Your task to perform on an android device: turn pop-ups off in chrome Image 0: 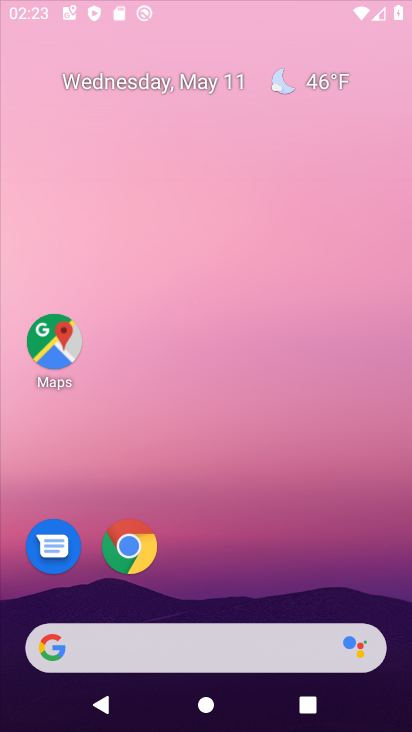
Step 0: click (217, 269)
Your task to perform on an android device: turn pop-ups off in chrome Image 1: 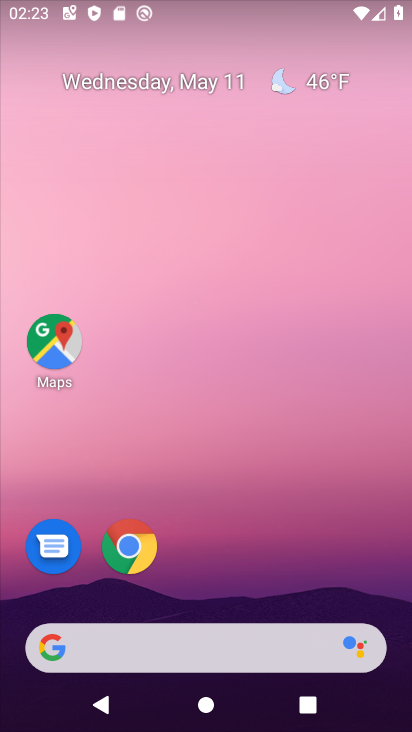
Step 1: drag from (210, 602) to (248, 197)
Your task to perform on an android device: turn pop-ups off in chrome Image 2: 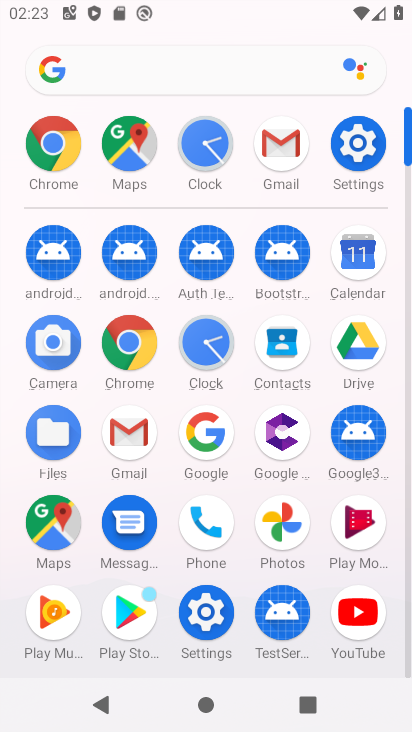
Step 2: click (128, 344)
Your task to perform on an android device: turn pop-ups off in chrome Image 3: 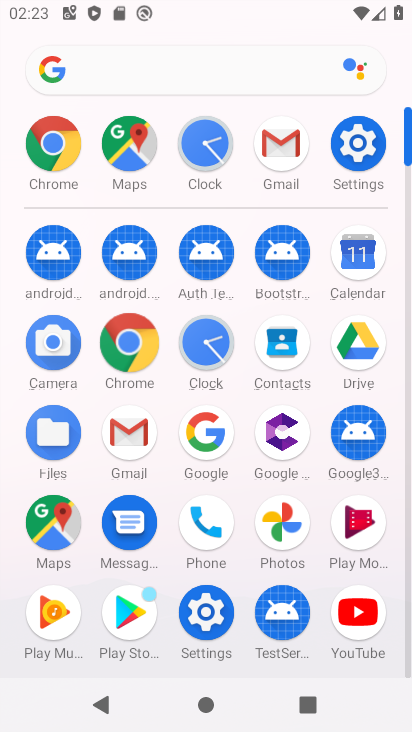
Step 3: click (128, 344)
Your task to perform on an android device: turn pop-ups off in chrome Image 4: 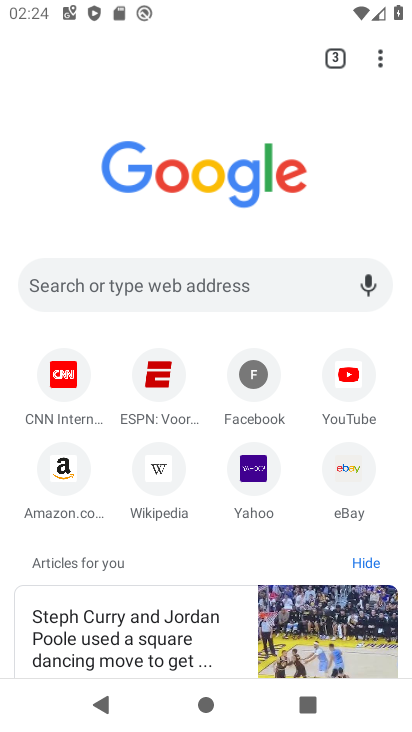
Step 4: drag from (220, 378) to (228, 94)
Your task to perform on an android device: turn pop-ups off in chrome Image 5: 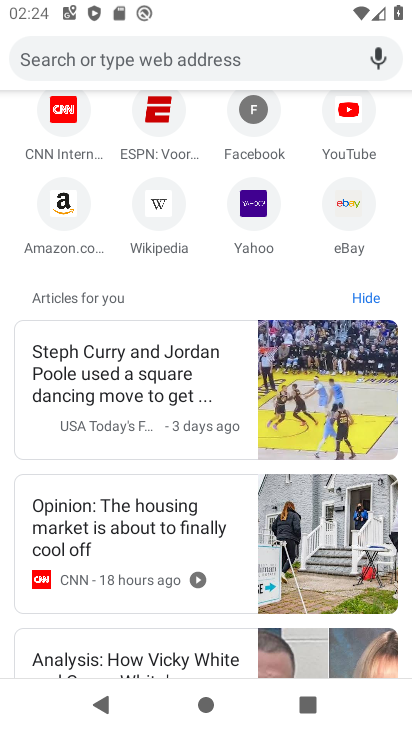
Step 5: drag from (191, 128) to (243, 370)
Your task to perform on an android device: turn pop-ups off in chrome Image 6: 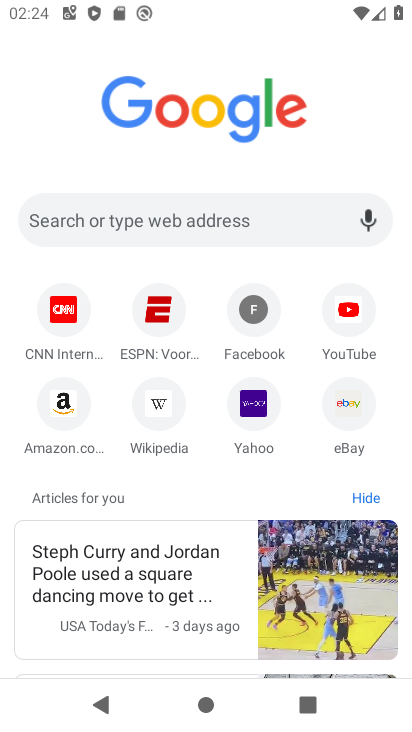
Step 6: drag from (377, 105) to (336, 318)
Your task to perform on an android device: turn pop-ups off in chrome Image 7: 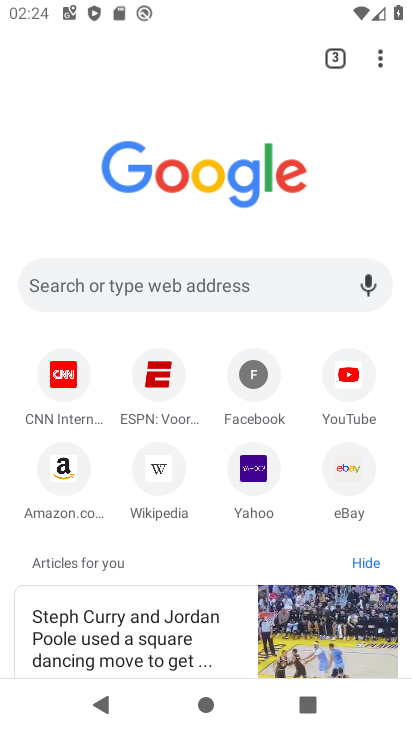
Step 7: drag from (381, 56) to (213, 496)
Your task to perform on an android device: turn pop-ups off in chrome Image 8: 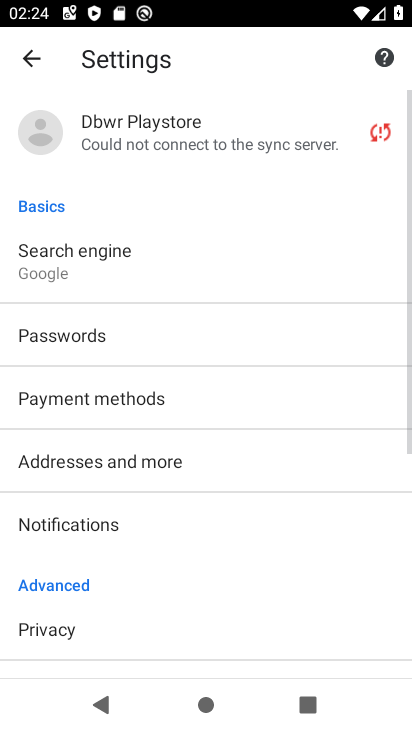
Step 8: drag from (218, 595) to (290, 205)
Your task to perform on an android device: turn pop-ups off in chrome Image 9: 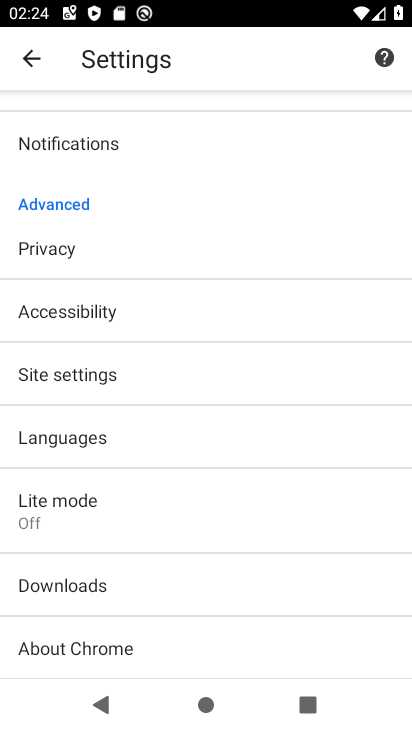
Step 9: click (101, 369)
Your task to perform on an android device: turn pop-ups off in chrome Image 10: 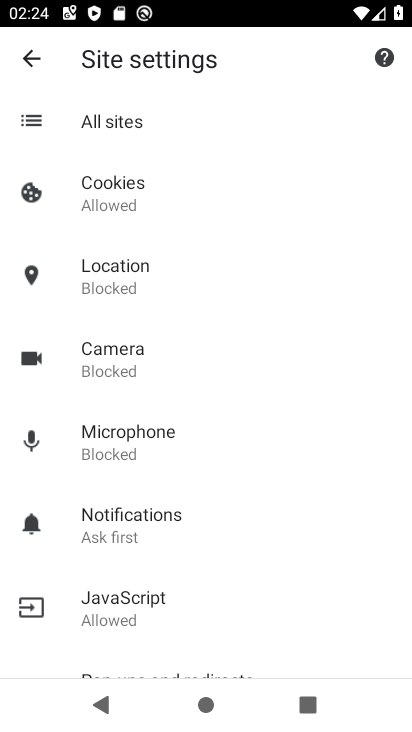
Step 10: drag from (192, 599) to (248, 229)
Your task to perform on an android device: turn pop-ups off in chrome Image 11: 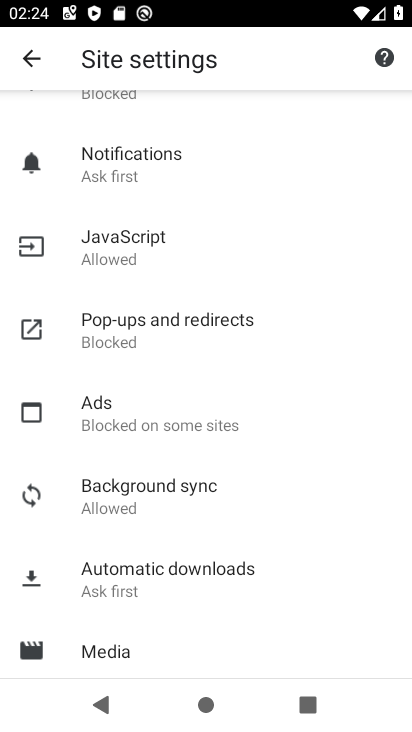
Step 11: click (156, 328)
Your task to perform on an android device: turn pop-ups off in chrome Image 12: 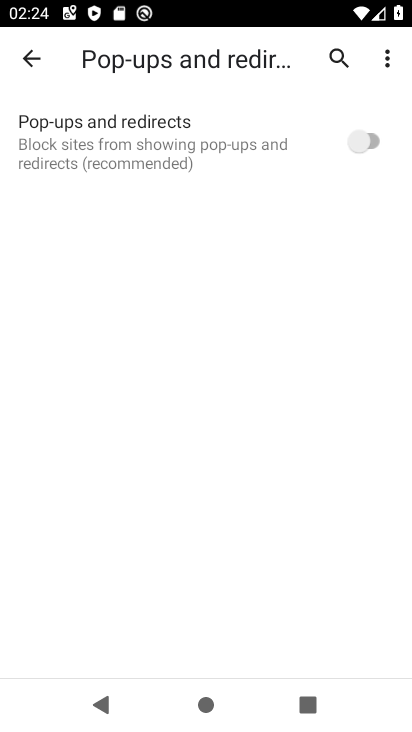
Step 12: click (343, 139)
Your task to perform on an android device: turn pop-ups off in chrome Image 13: 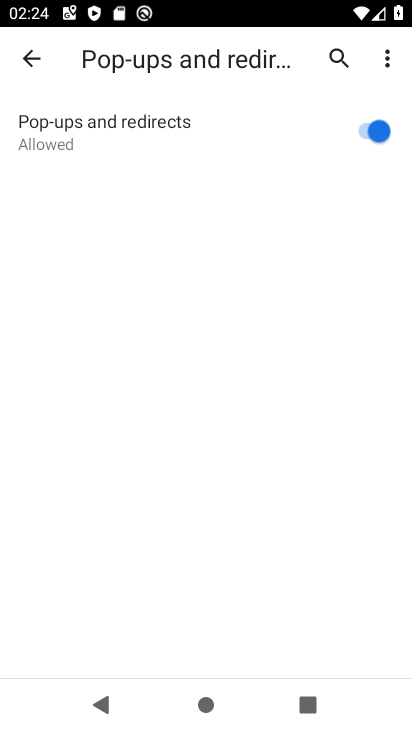
Step 13: click (344, 141)
Your task to perform on an android device: turn pop-ups off in chrome Image 14: 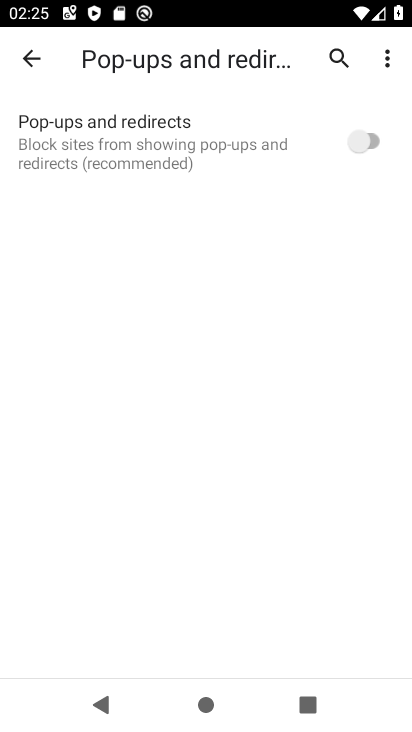
Step 14: task complete